Your task to perform on an android device: turn on notifications settings in the gmail app Image 0: 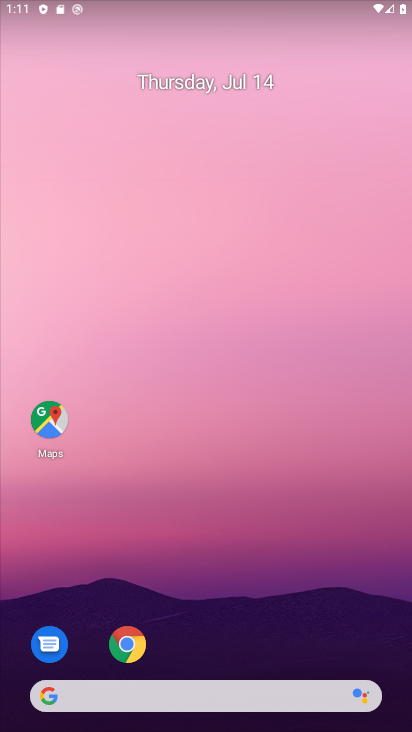
Step 0: drag from (220, 672) to (245, 250)
Your task to perform on an android device: turn on notifications settings in the gmail app Image 1: 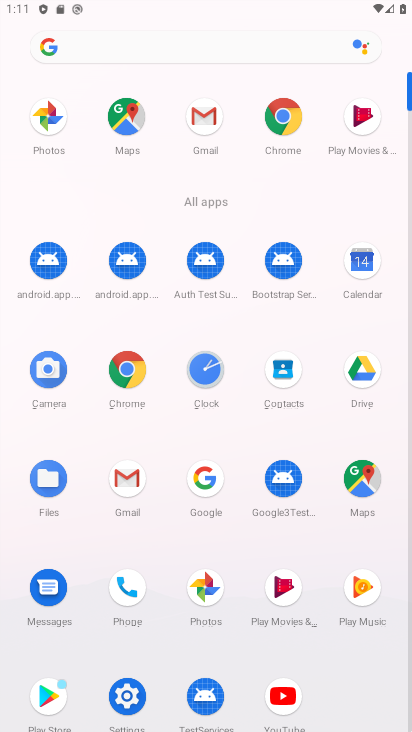
Step 1: click (117, 488)
Your task to perform on an android device: turn on notifications settings in the gmail app Image 2: 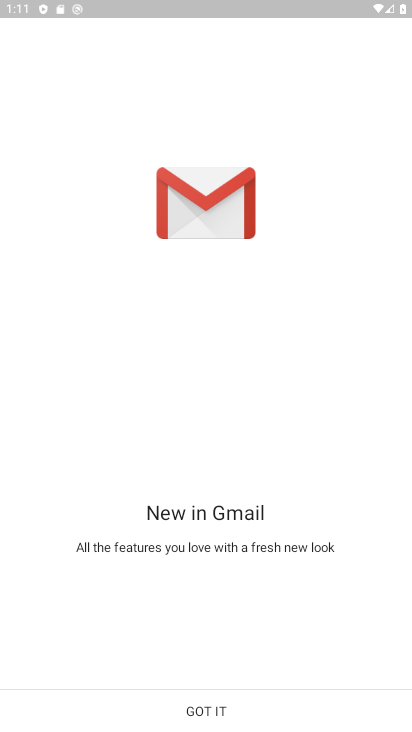
Step 2: click (211, 712)
Your task to perform on an android device: turn on notifications settings in the gmail app Image 3: 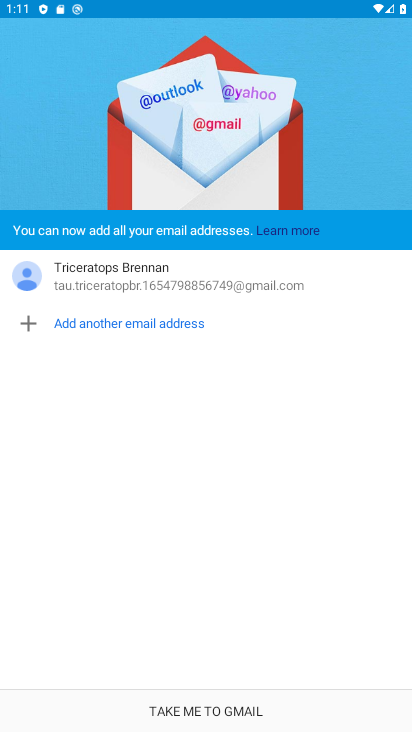
Step 3: click (220, 717)
Your task to perform on an android device: turn on notifications settings in the gmail app Image 4: 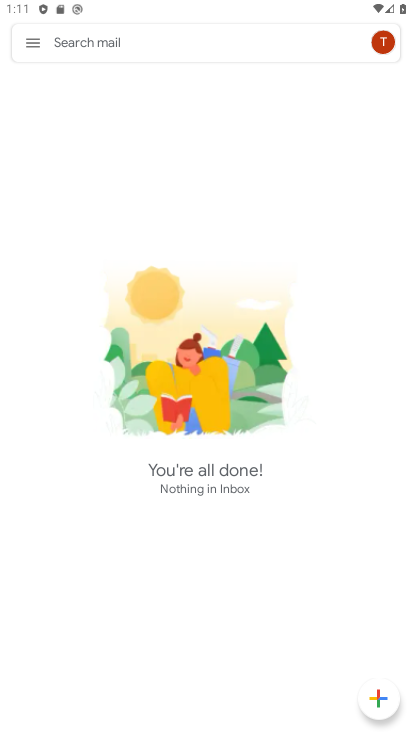
Step 4: click (41, 43)
Your task to perform on an android device: turn on notifications settings in the gmail app Image 5: 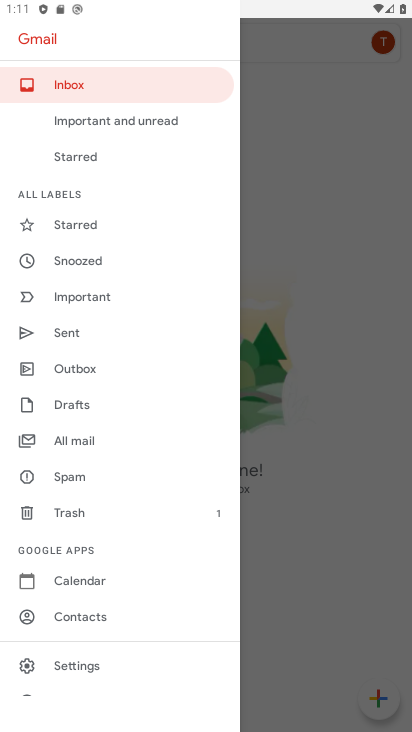
Step 5: click (94, 660)
Your task to perform on an android device: turn on notifications settings in the gmail app Image 6: 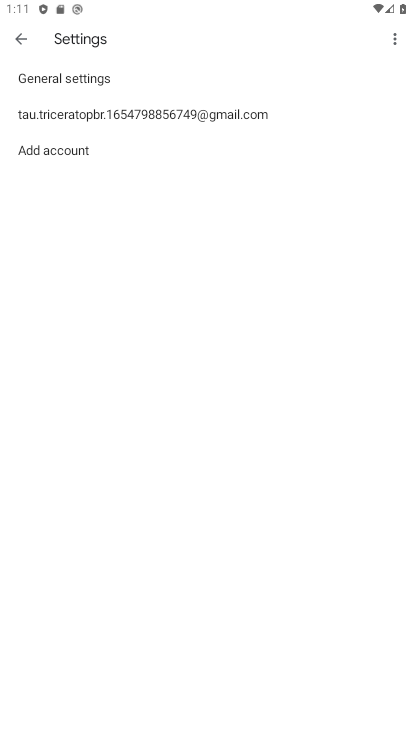
Step 6: click (259, 119)
Your task to perform on an android device: turn on notifications settings in the gmail app Image 7: 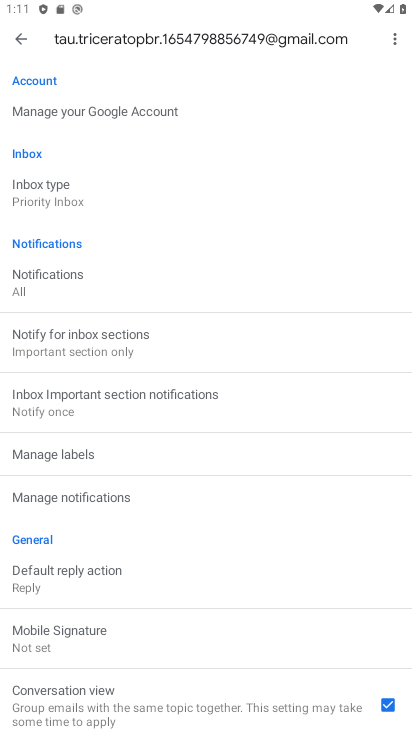
Step 7: click (135, 498)
Your task to perform on an android device: turn on notifications settings in the gmail app Image 8: 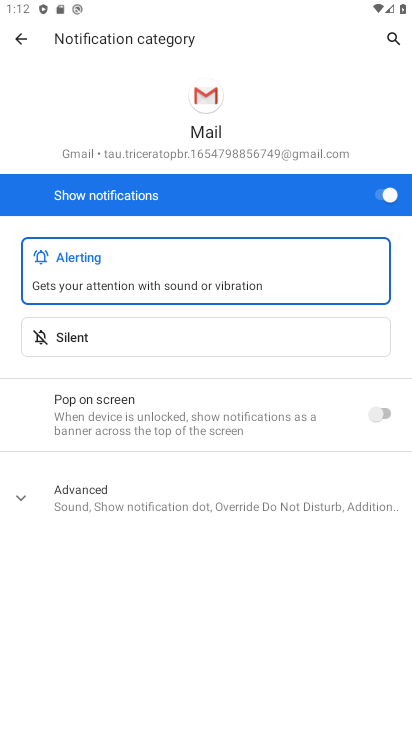
Step 8: task complete